Your task to perform on an android device: Open Android settings Image 0: 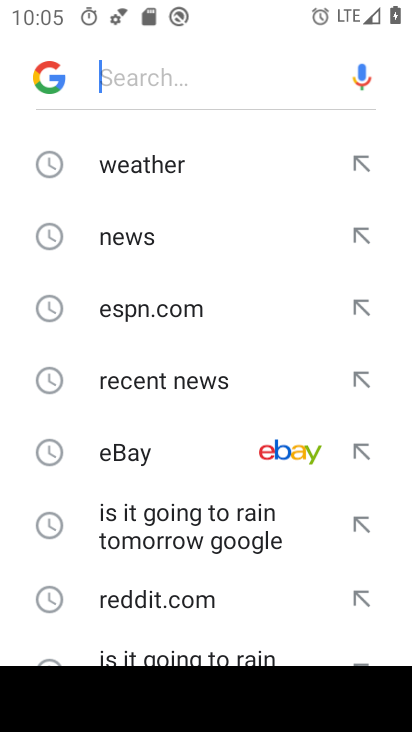
Step 0: press back button
Your task to perform on an android device: Open Android settings Image 1: 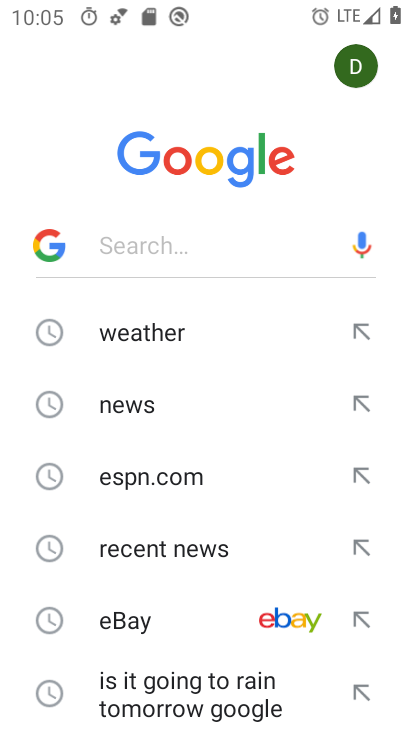
Step 1: press back button
Your task to perform on an android device: Open Android settings Image 2: 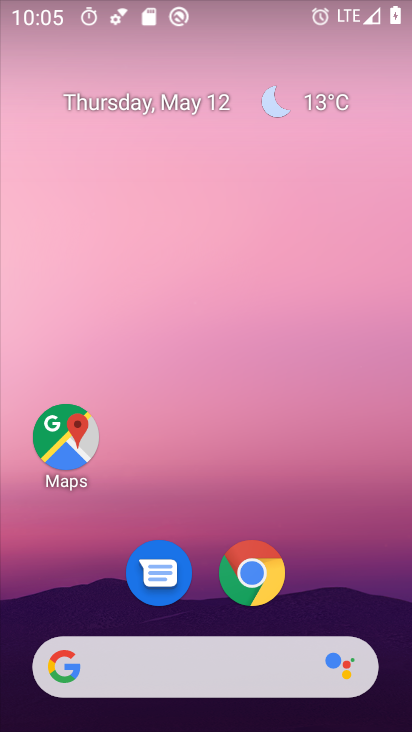
Step 2: drag from (372, 581) to (317, 177)
Your task to perform on an android device: Open Android settings Image 3: 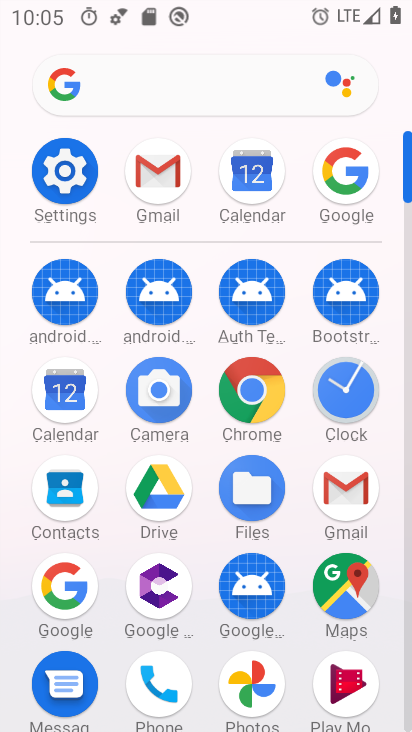
Step 3: click (56, 177)
Your task to perform on an android device: Open Android settings Image 4: 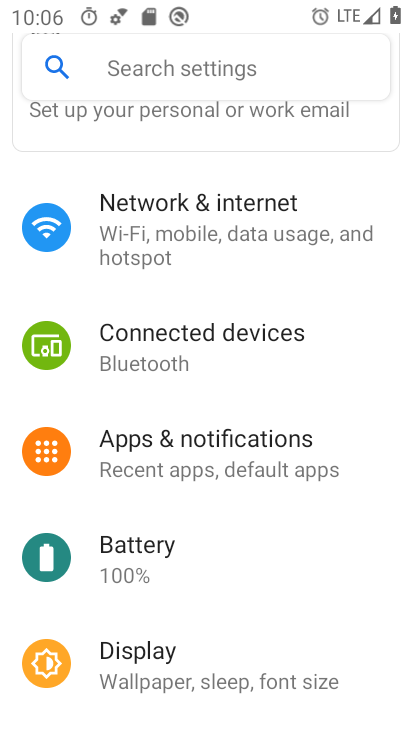
Step 4: task complete